Your task to perform on an android device: Open Google Chrome and open the bookmarks view Image 0: 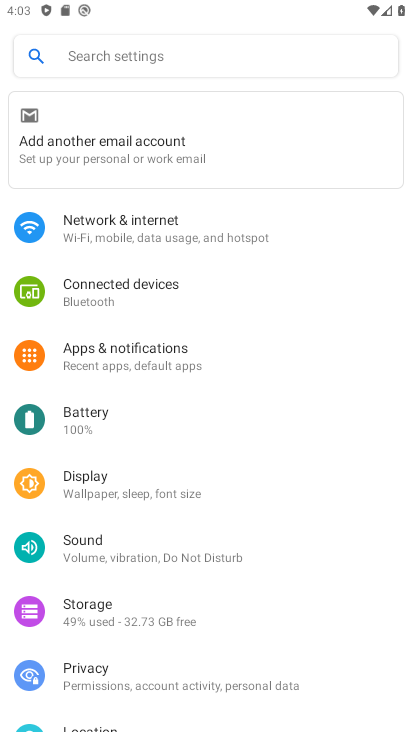
Step 0: press back button
Your task to perform on an android device: Open Google Chrome and open the bookmarks view Image 1: 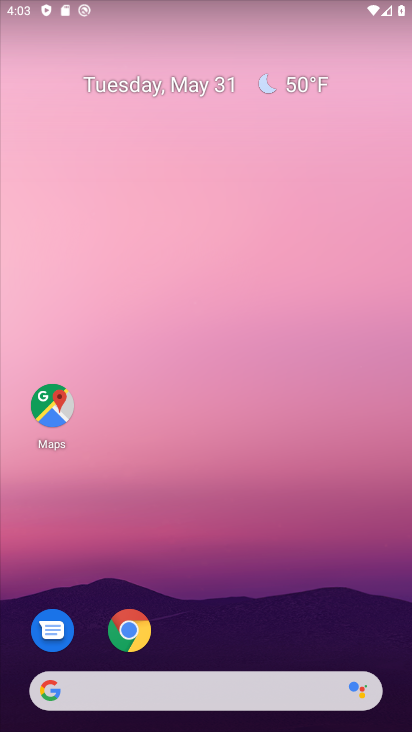
Step 1: drag from (285, 583) to (225, 59)
Your task to perform on an android device: Open Google Chrome and open the bookmarks view Image 2: 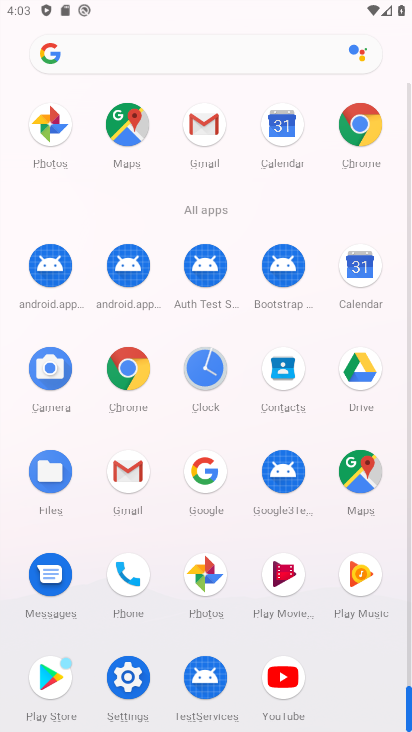
Step 2: drag from (18, 546) to (19, 188)
Your task to perform on an android device: Open Google Chrome and open the bookmarks view Image 3: 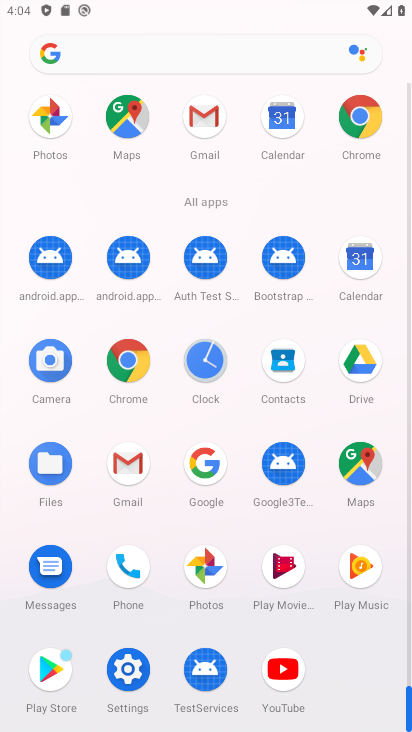
Step 3: click (126, 357)
Your task to perform on an android device: Open Google Chrome and open the bookmarks view Image 4: 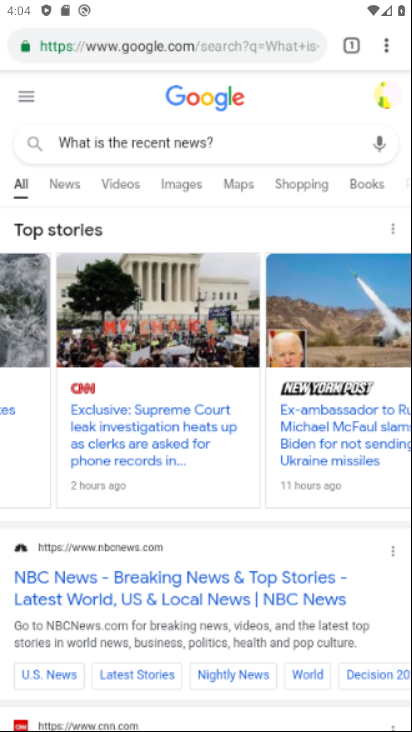
Step 4: click (386, 48)
Your task to perform on an android device: Open Google Chrome and open the bookmarks view Image 5: 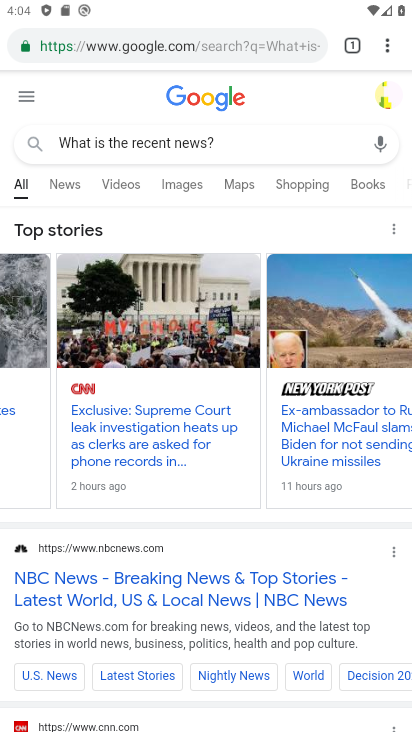
Step 5: task complete